Your task to perform on an android device: toggle notifications settings in the gmail app Image 0: 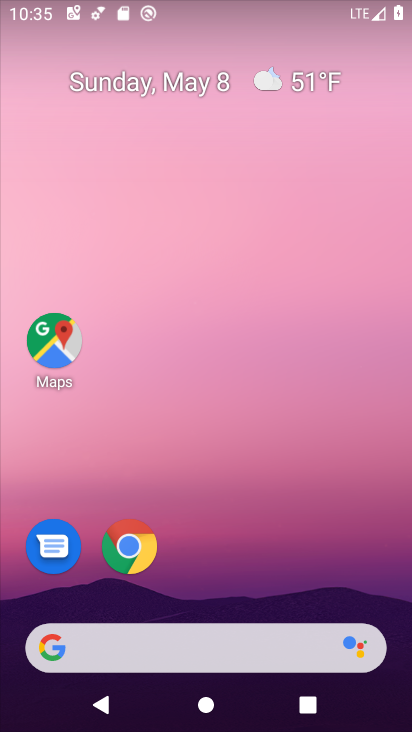
Step 0: drag from (387, 620) to (332, 36)
Your task to perform on an android device: toggle notifications settings in the gmail app Image 1: 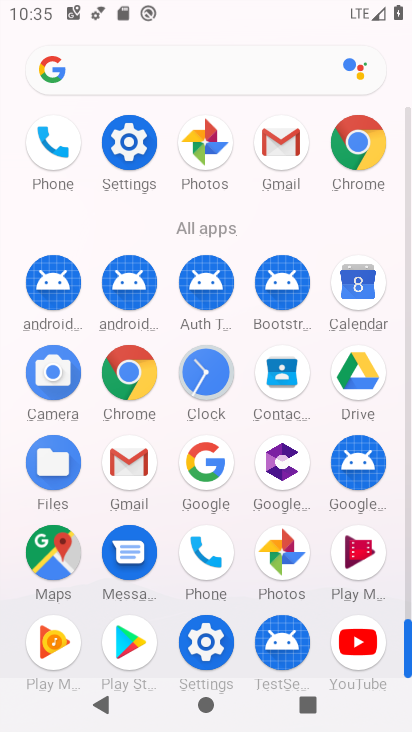
Step 1: click (128, 461)
Your task to perform on an android device: toggle notifications settings in the gmail app Image 2: 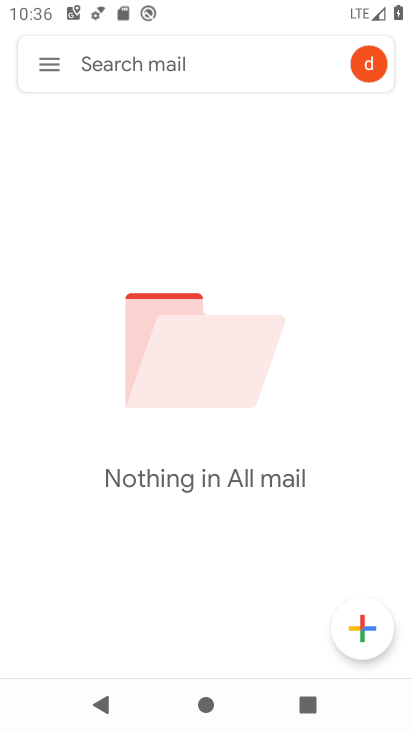
Step 2: click (60, 62)
Your task to perform on an android device: toggle notifications settings in the gmail app Image 3: 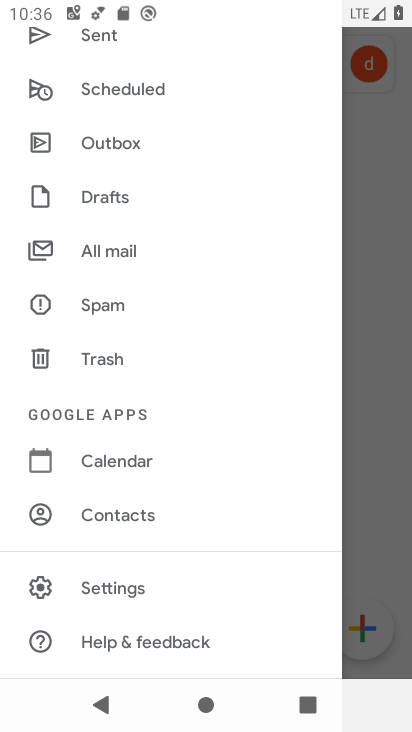
Step 3: click (93, 577)
Your task to perform on an android device: toggle notifications settings in the gmail app Image 4: 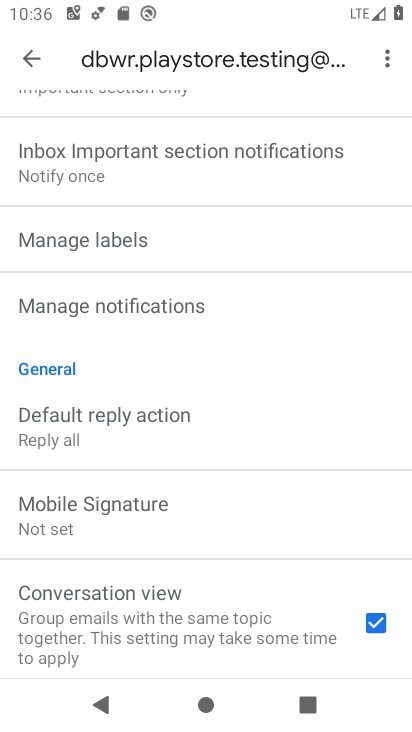
Step 4: click (119, 300)
Your task to perform on an android device: toggle notifications settings in the gmail app Image 5: 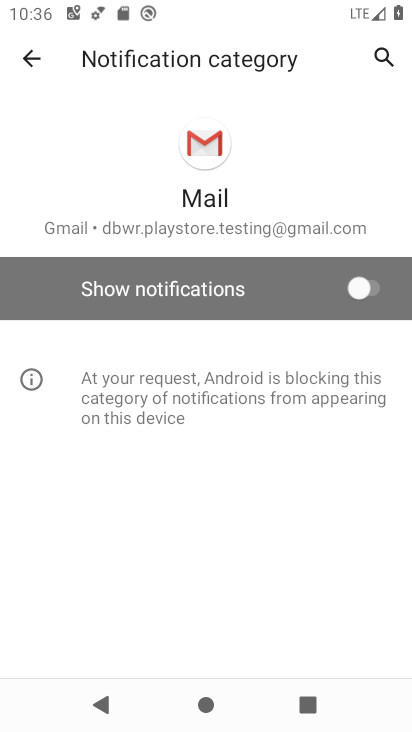
Step 5: click (370, 289)
Your task to perform on an android device: toggle notifications settings in the gmail app Image 6: 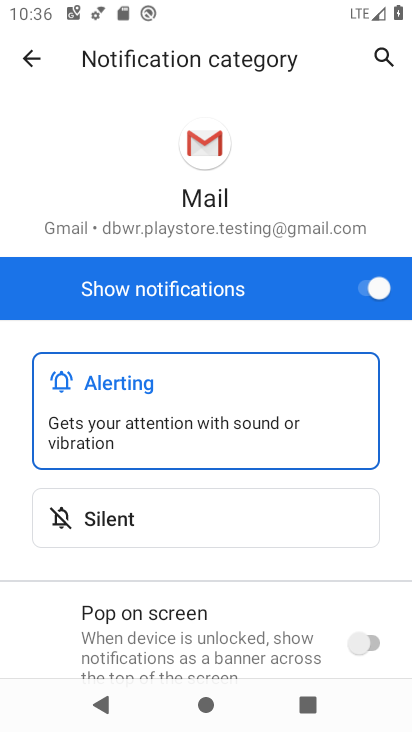
Step 6: task complete